Your task to perform on an android device: When is my next appointment? Image 0: 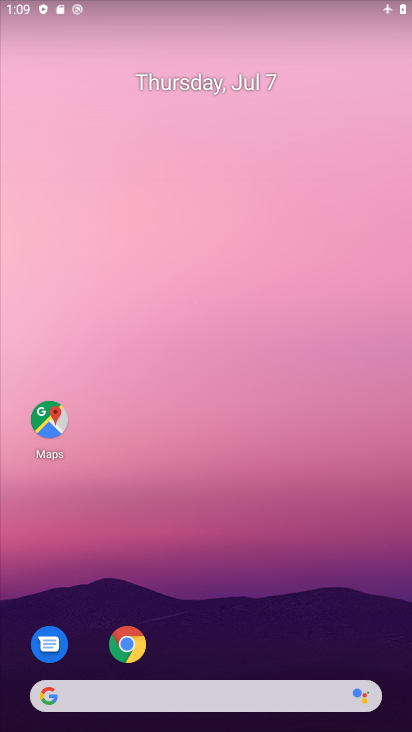
Step 0: drag from (181, 600) to (135, 145)
Your task to perform on an android device: When is my next appointment? Image 1: 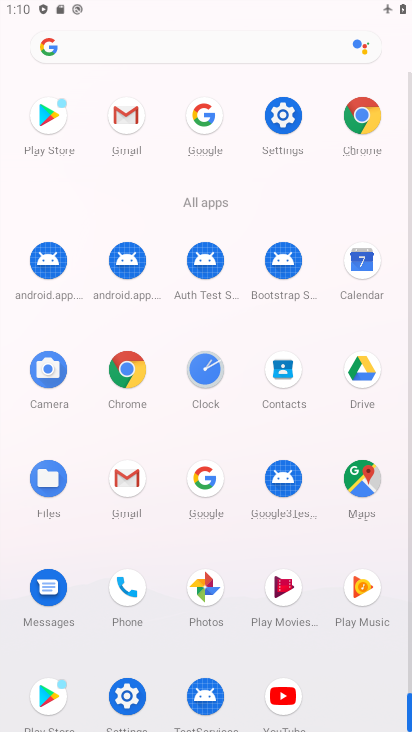
Step 1: click (366, 253)
Your task to perform on an android device: When is my next appointment? Image 2: 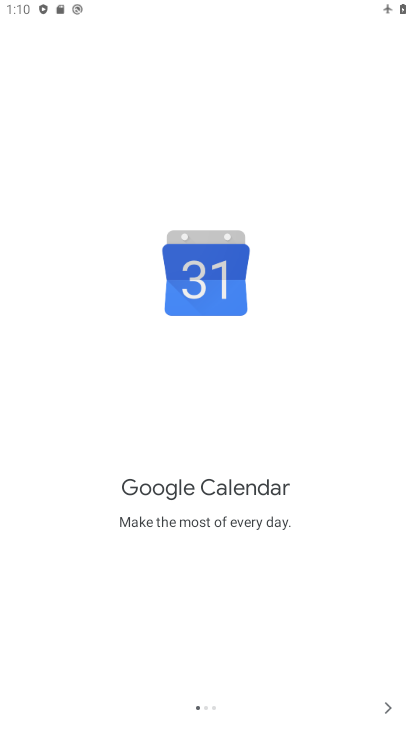
Step 2: click (386, 705)
Your task to perform on an android device: When is my next appointment? Image 3: 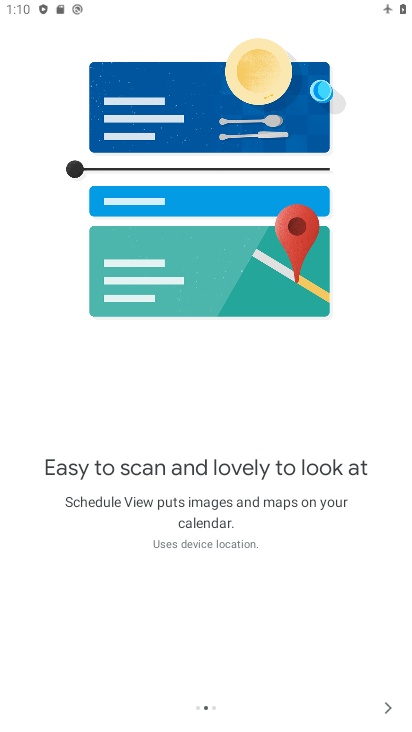
Step 3: click (386, 705)
Your task to perform on an android device: When is my next appointment? Image 4: 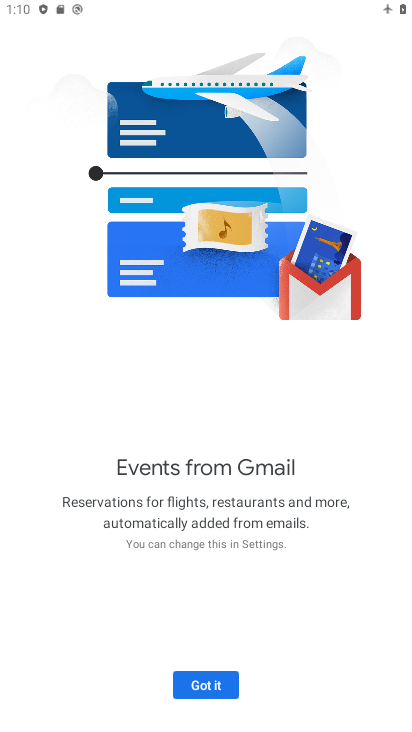
Step 4: click (209, 683)
Your task to perform on an android device: When is my next appointment? Image 5: 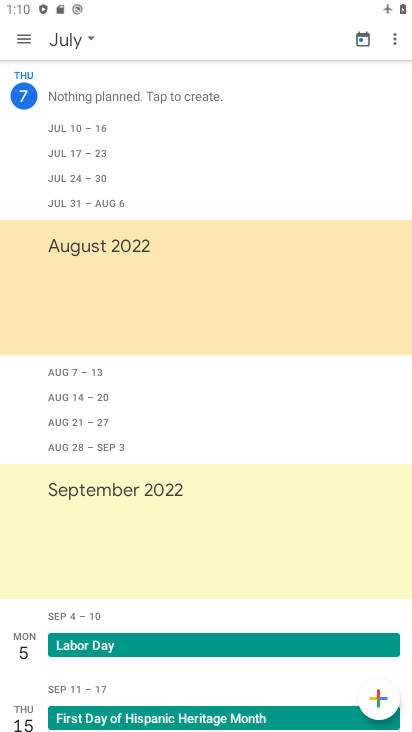
Step 5: click (92, 45)
Your task to perform on an android device: When is my next appointment? Image 6: 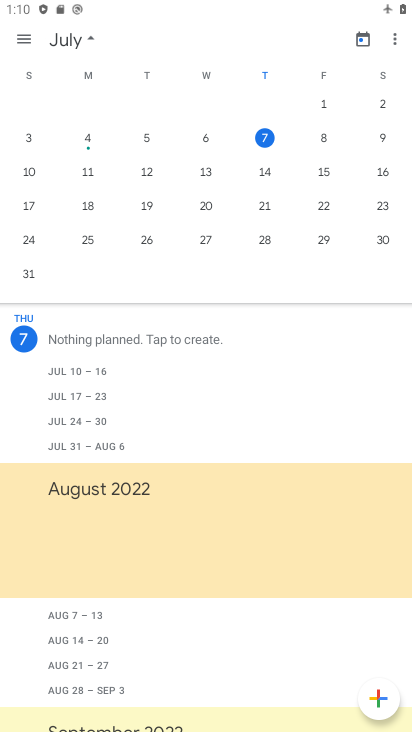
Step 6: click (327, 144)
Your task to perform on an android device: When is my next appointment? Image 7: 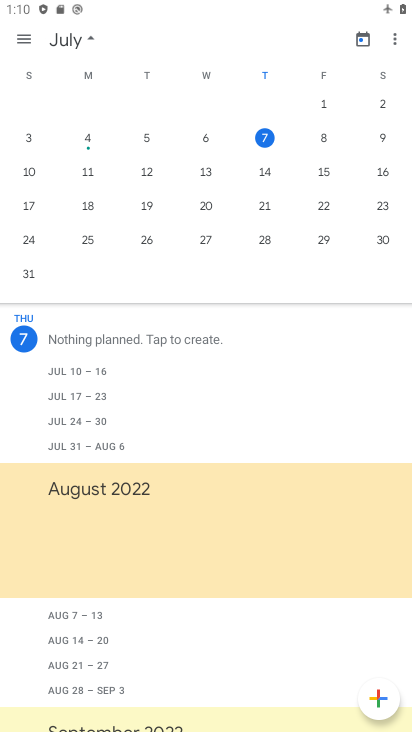
Step 7: click (380, 133)
Your task to perform on an android device: When is my next appointment? Image 8: 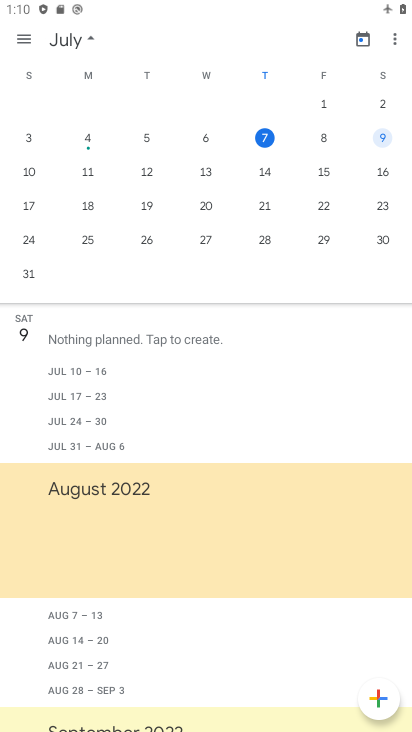
Step 8: click (380, 135)
Your task to perform on an android device: When is my next appointment? Image 9: 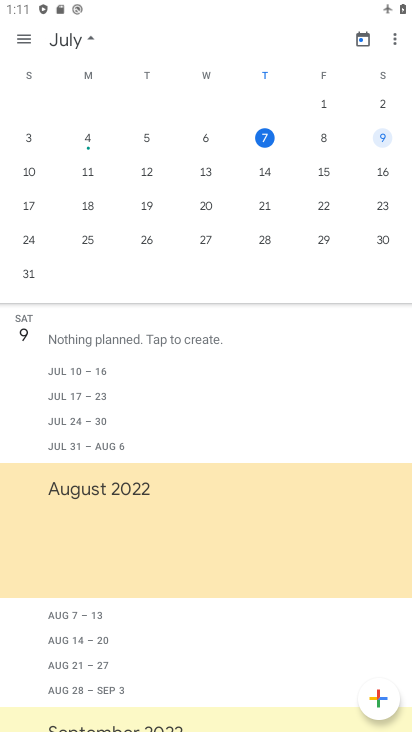
Step 9: click (26, 42)
Your task to perform on an android device: When is my next appointment? Image 10: 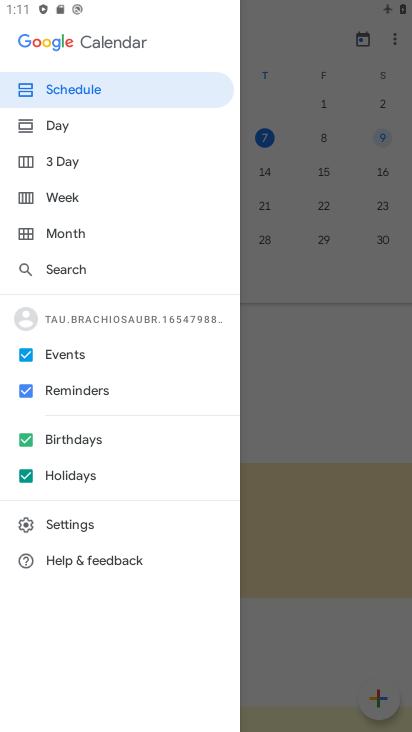
Step 10: click (383, 133)
Your task to perform on an android device: When is my next appointment? Image 11: 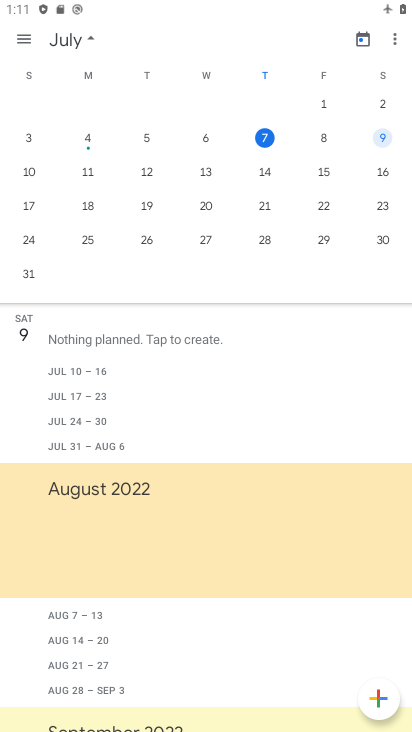
Step 11: click (383, 133)
Your task to perform on an android device: When is my next appointment? Image 12: 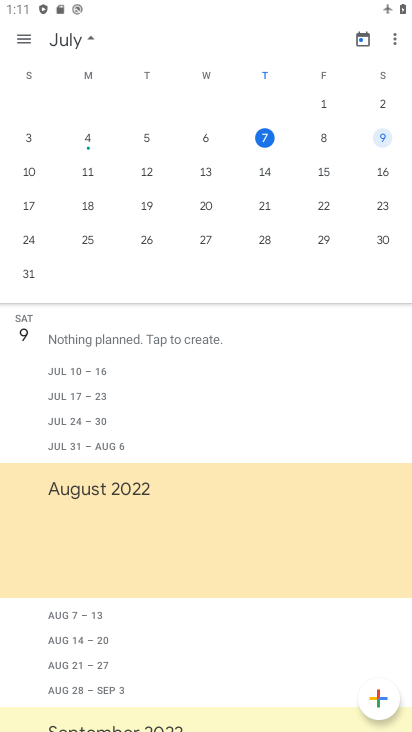
Step 12: click (25, 39)
Your task to perform on an android device: When is my next appointment? Image 13: 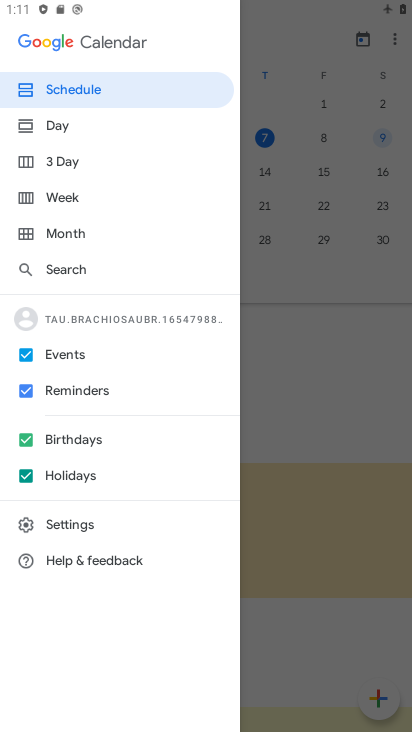
Step 13: drag from (78, 379) to (117, 229)
Your task to perform on an android device: When is my next appointment? Image 14: 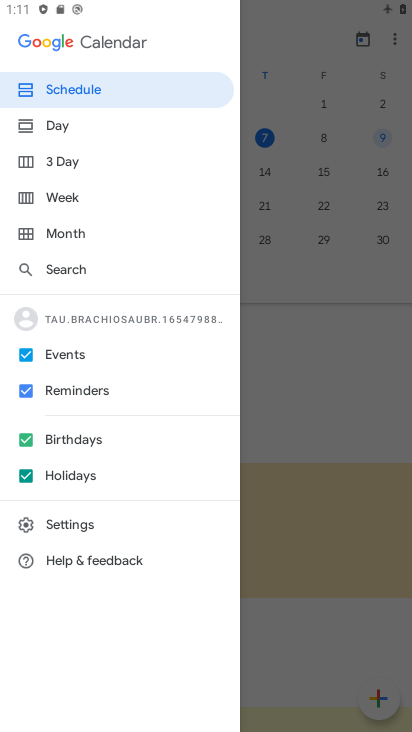
Step 14: drag from (113, 117) to (131, 334)
Your task to perform on an android device: When is my next appointment? Image 15: 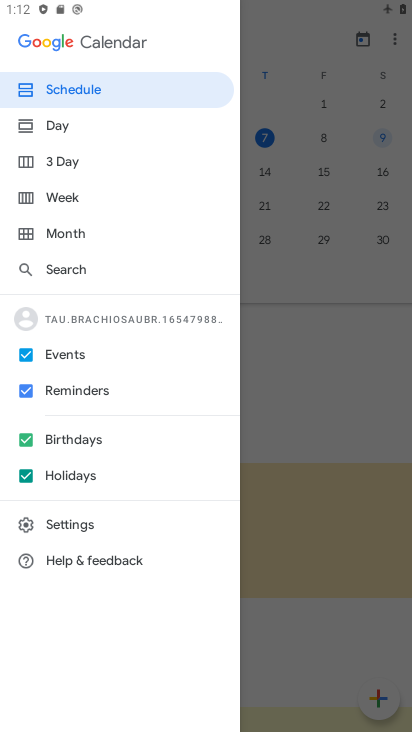
Step 15: click (304, 44)
Your task to perform on an android device: When is my next appointment? Image 16: 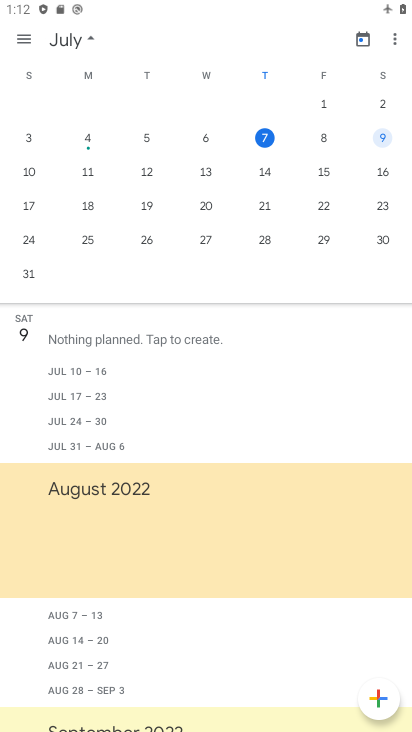
Step 16: click (384, 131)
Your task to perform on an android device: When is my next appointment? Image 17: 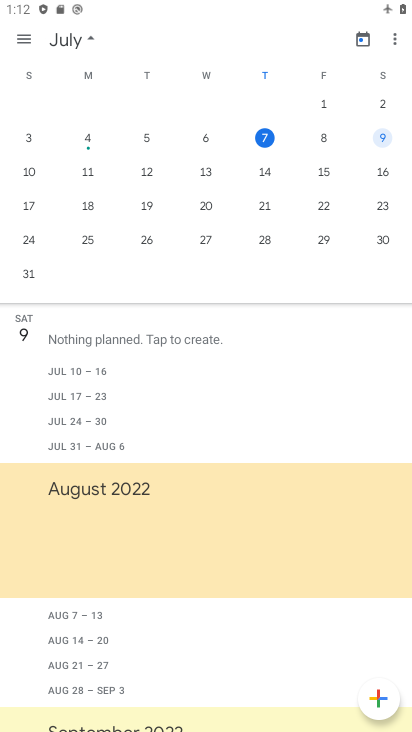
Step 17: click (395, 41)
Your task to perform on an android device: When is my next appointment? Image 18: 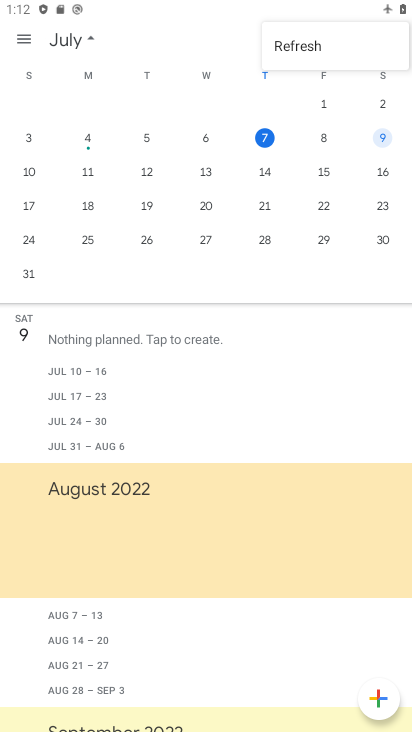
Step 18: click (294, 48)
Your task to perform on an android device: When is my next appointment? Image 19: 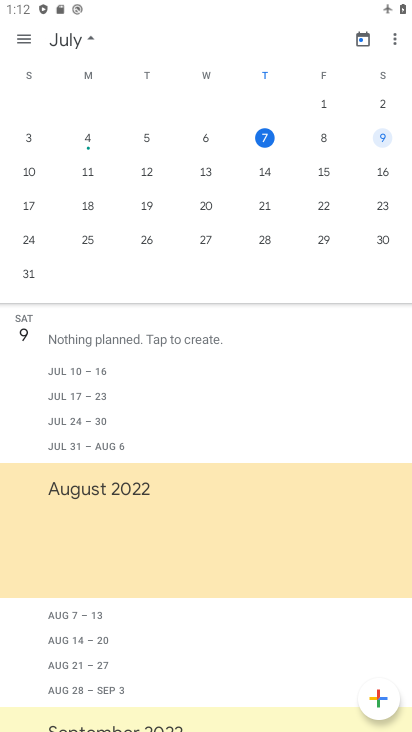
Step 19: task complete